Your task to perform on an android device: Open calendar and show me the third week of next month Image 0: 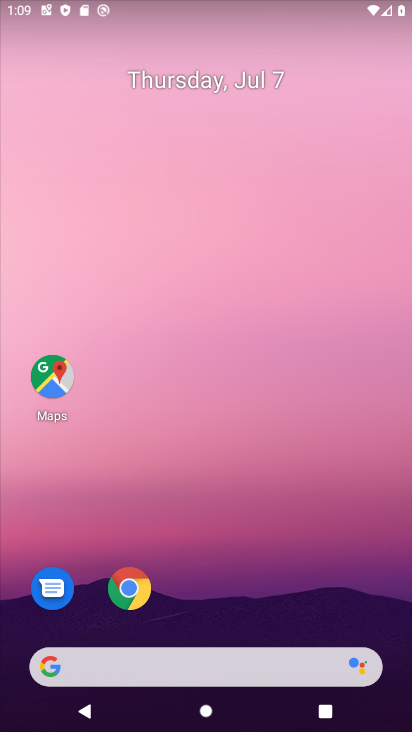
Step 0: drag from (199, 368) to (192, 192)
Your task to perform on an android device: Open calendar and show me the third week of next month Image 1: 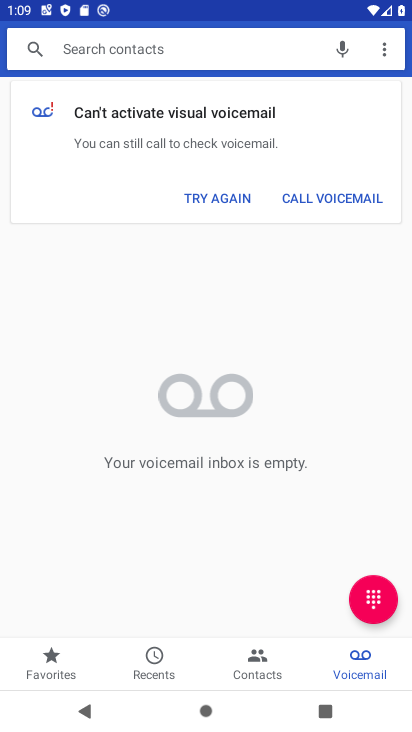
Step 1: press home button
Your task to perform on an android device: Open calendar and show me the third week of next month Image 2: 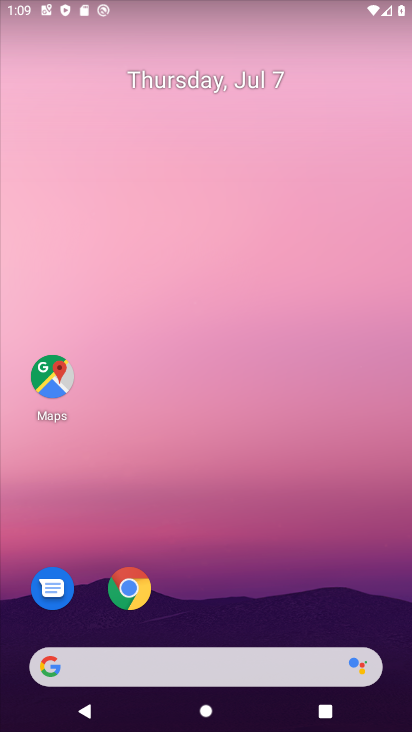
Step 2: drag from (267, 604) to (286, 351)
Your task to perform on an android device: Open calendar and show me the third week of next month Image 3: 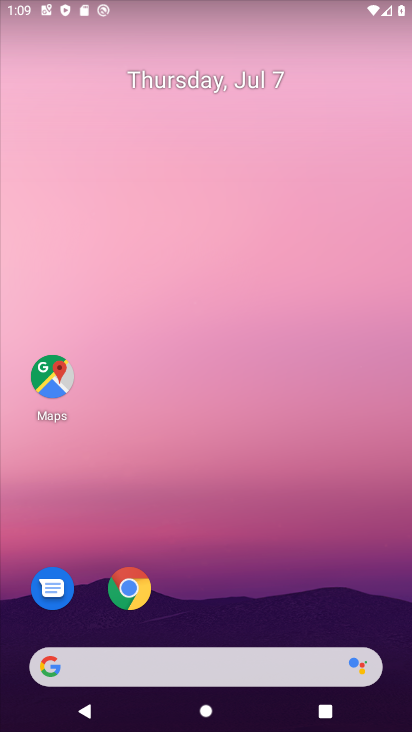
Step 3: drag from (217, 623) to (214, 193)
Your task to perform on an android device: Open calendar and show me the third week of next month Image 4: 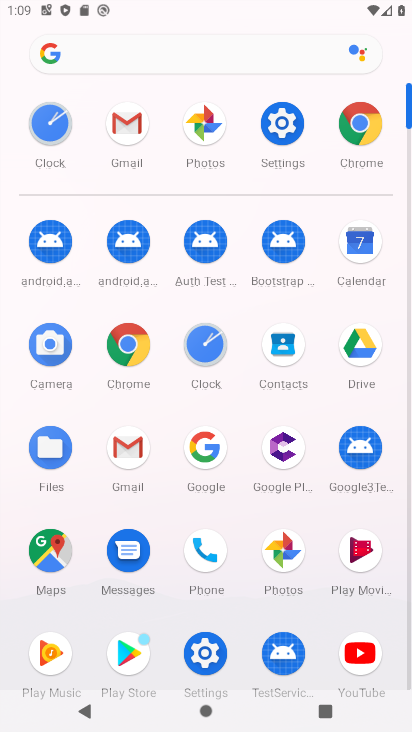
Step 4: click (361, 226)
Your task to perform on an android device: Open calendar and show me the third week of next month Image 5: 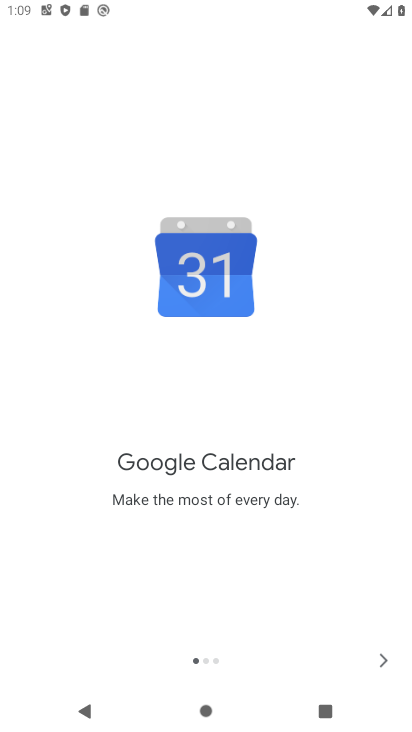
Step 5: click (377, 653)
Your task to perform on an android device: Open calendar and show me the third week of next month Image 6: 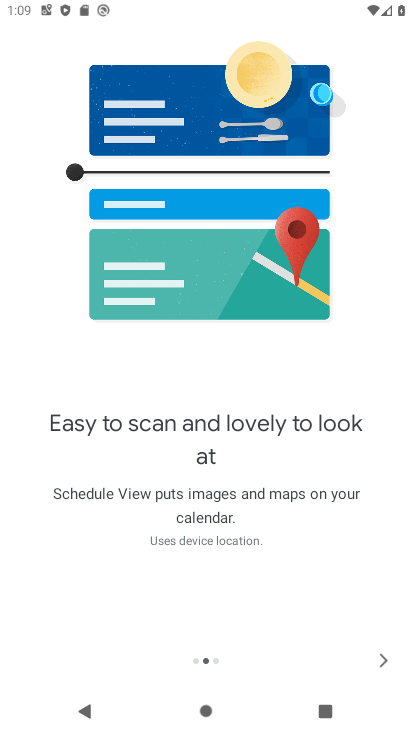
Step 6: click (377, 653)
Your task to perform on an android device: Open calendar and show me the third week of next month Image 7: 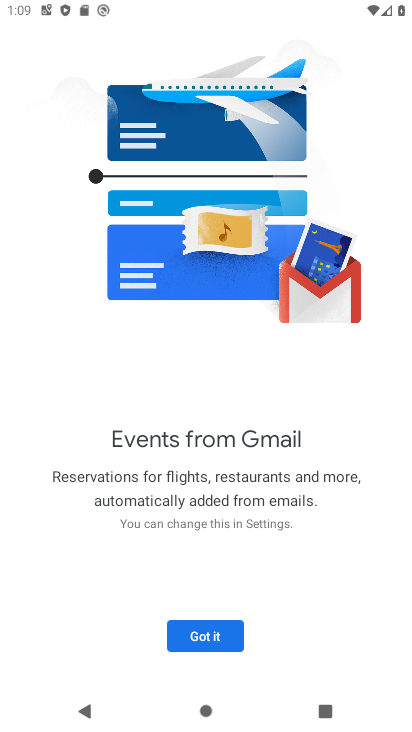
Step 7: click (204, 626)
Your task to perform on an android device: Open calendar and show me the third week of next month Image 8: 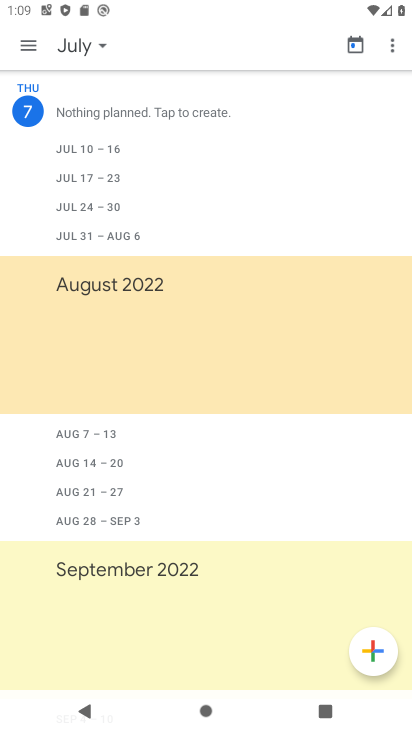
Step 8: click (23, 45)
Your task to perform on an android device: Open calendar and show me the third week of next month Image 9: 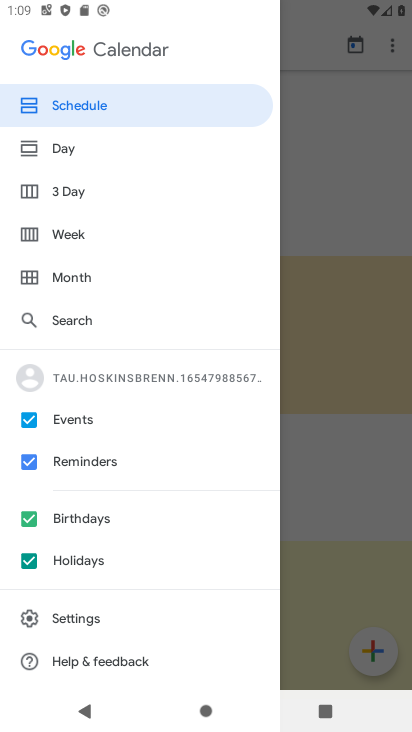
Step 9: click (98, 284)
Your task to perform on an android device: Open calendar and show me the third week of next month Image 10: 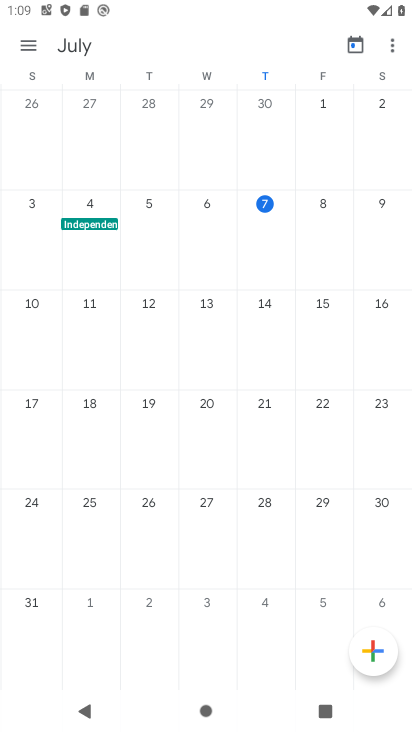
Step 10: task complete